Your task to perform on an android device: turn pop-ups off in chrome Image 0: 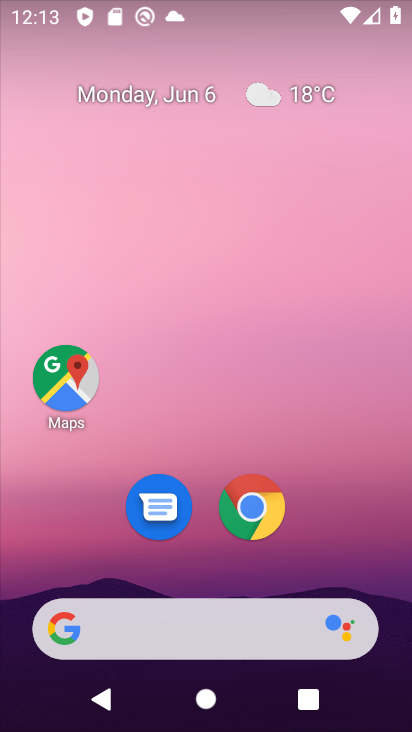
Step 0: click (269, 506)
Your task to perform on an android device: turn pop-ups off in chrome Image 1: 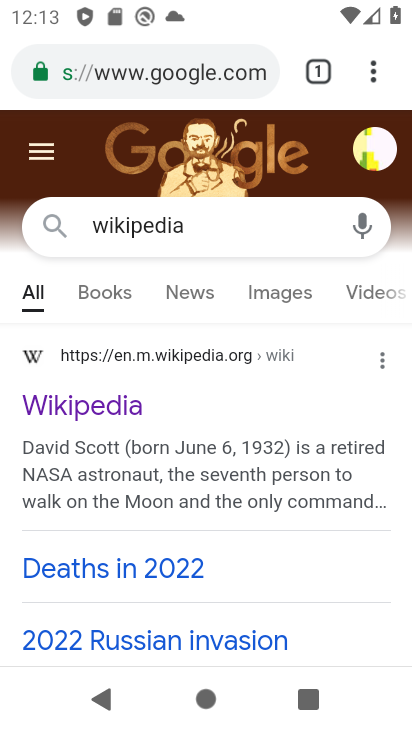
Step 1: click (372, 84)
Your task to perform on an android device: turn pop-ups off in chrome Image 2: 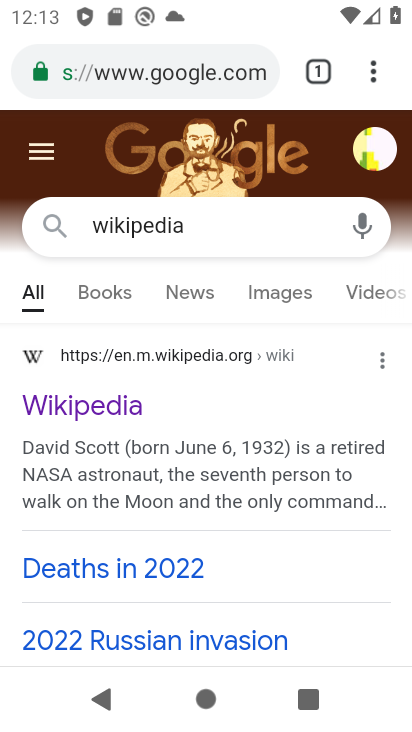
Step 2: click (357, 75)
Your task to perform on an android device: turn pop-ups off in chrome Image 3: 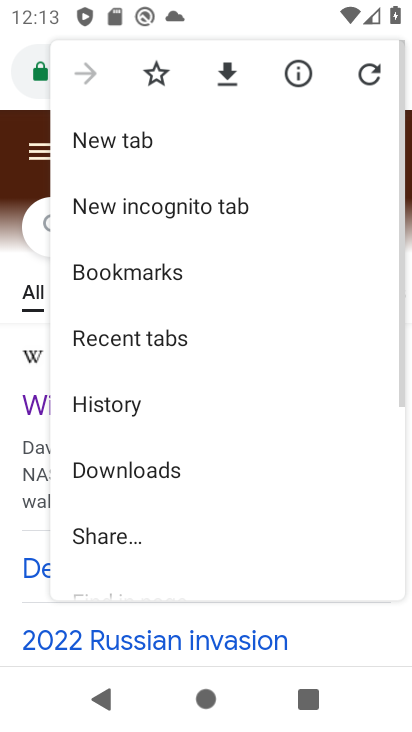
Step 3: drag from (166, 509) to (245, 189)
Your task to perform on an android device: turn pop-ups off in chrome Image 4: 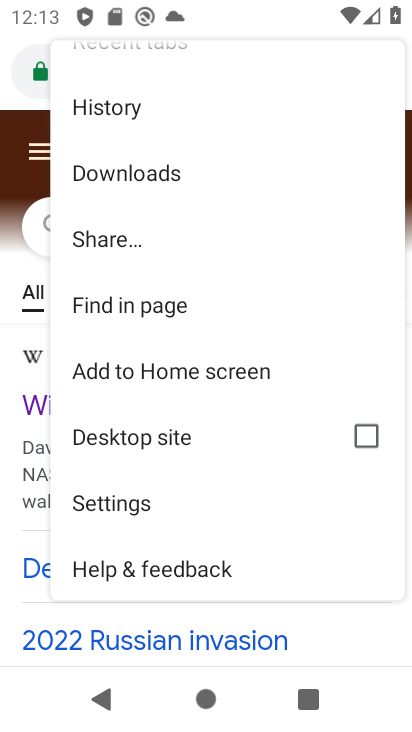
Step 4: click (126, 514)
Your task to perform on an android device: turn pop-ups off in chrome Image 5: 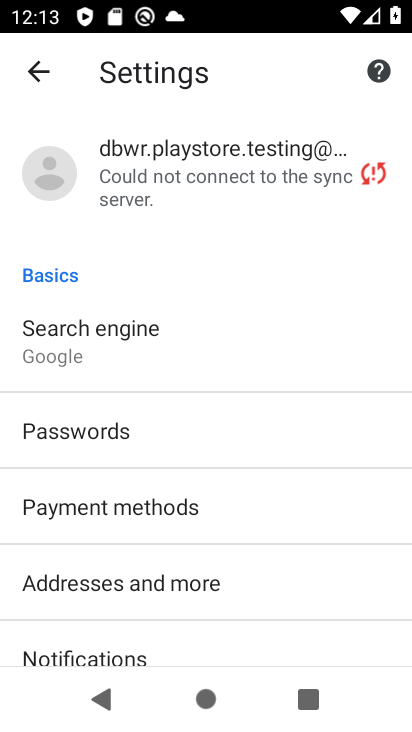
Step 5: drag from (193, 597) to (228, 292)
Your task to perform on an android device: turn pop-ups off in chrome Image 6: 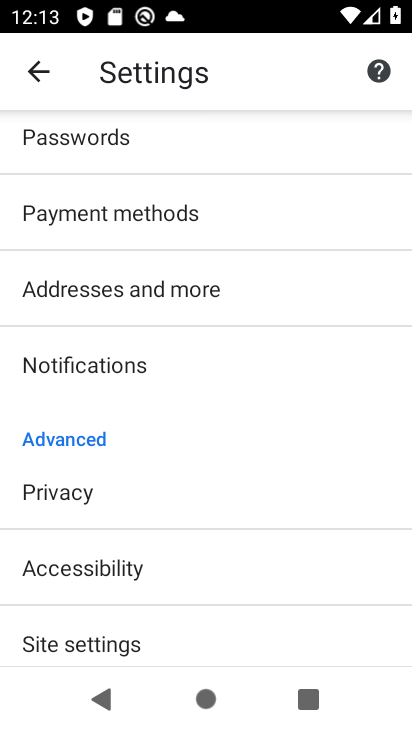
Step 6: drag from (181, 531) to (201, 302)
Your task to perform on an android device: turn pop-ups off in chrome Image 7: 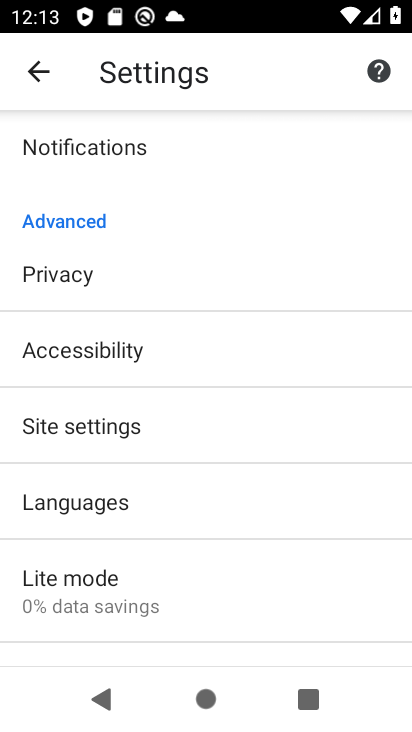
Step 7: click (126, 428)
Your task to perform on an android device: turn pop-ups off in chrome Image 8: 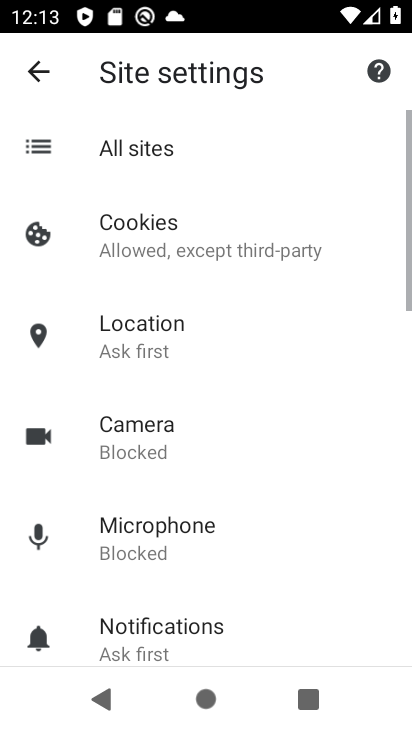
Step 8: drag from (183, 546) to (192, 242)
Your task to perform on an android device: turn pop-ups off in chrome Image 9: 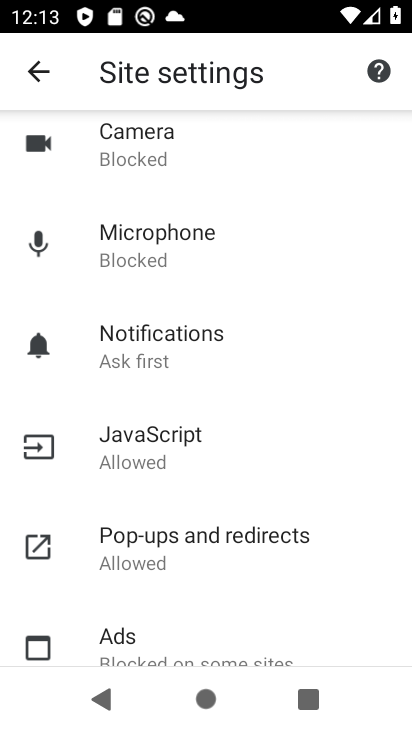
Step 9: click (180, 541)
Your task to perform on an android device: turn pop-ups off in chrome Image 10: 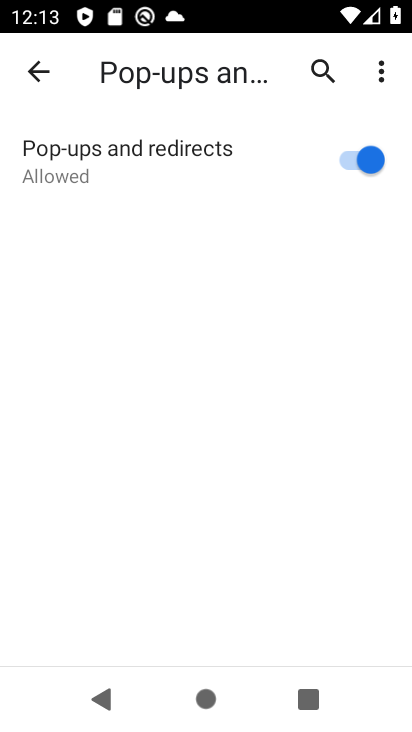
Step 10: click (338, 171)
Your task to perform on an android device: turn pop-ups off in chrome Image 11: 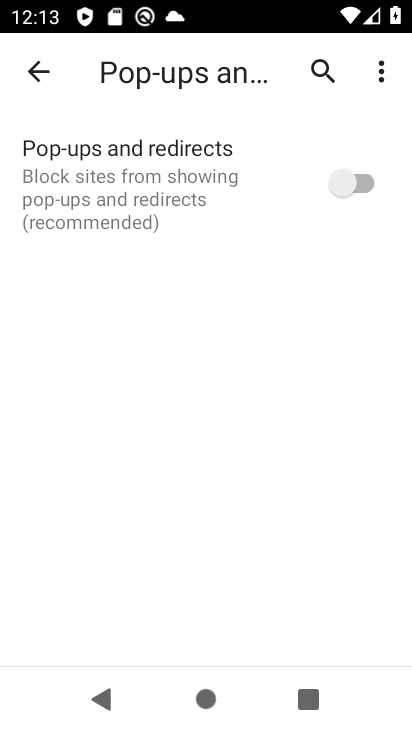
Step 11: task complete